Your task to perform on an android device: find which apps use the phone's location Image 0: 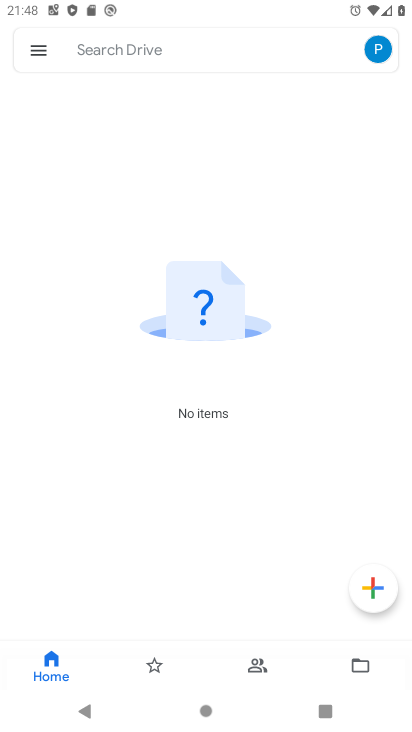
Step 0: press home button
Your task to perform on an android device: find which apps use the phone's location Image 1: 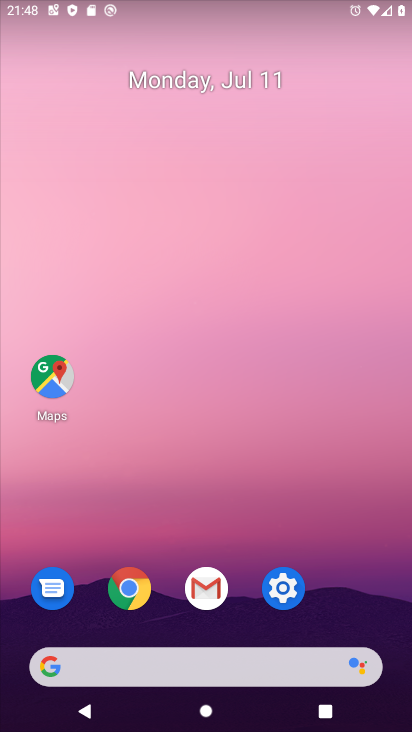
Step 1: click (279, 594)
Your task to perform on an android device: find which apps use the phone's location Image 2: 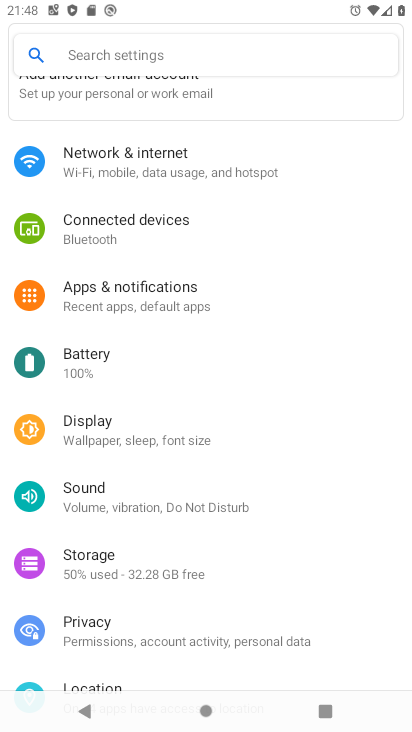
Step 2: click (140, 45)
Your task to perform on an android device: find which apps use the phone's location Image 3: 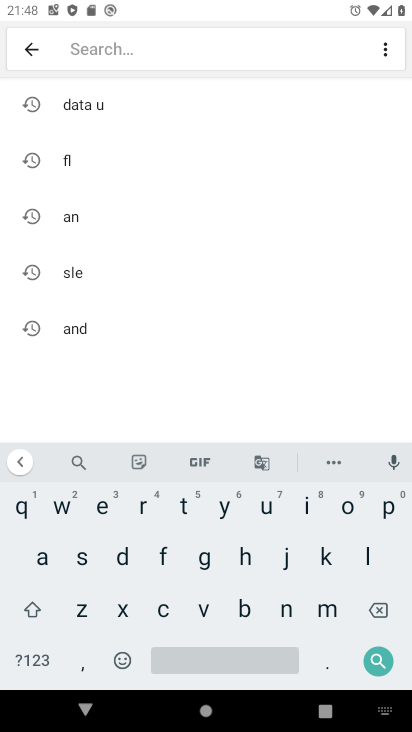
Step 3: click (373, 570)
Your task to perform on an android device: find which apps use the phone's location Image 4: 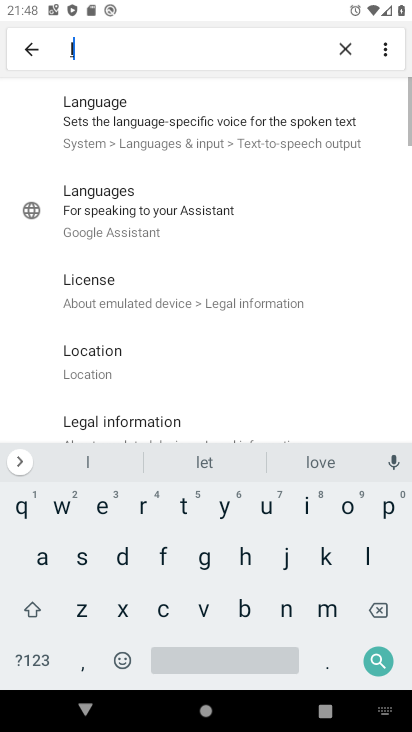
Step 4: click (350, 509)
Your task to perform on an android device: find which apps use the phone's location Image 5: 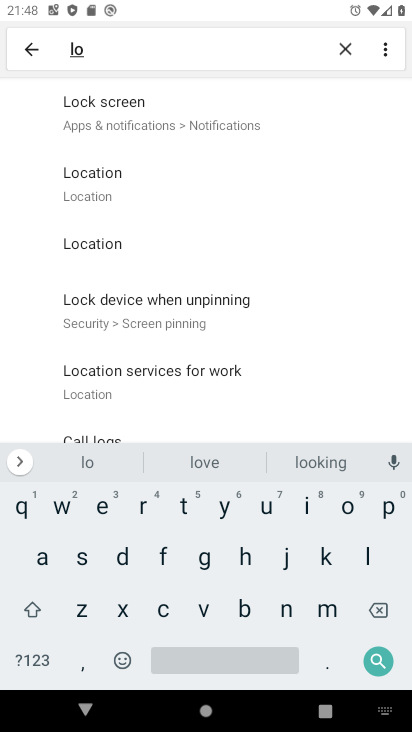
Step 5: click (115, 182)
Your task to perform on an android device: find which apps use the phone's location Image 6: 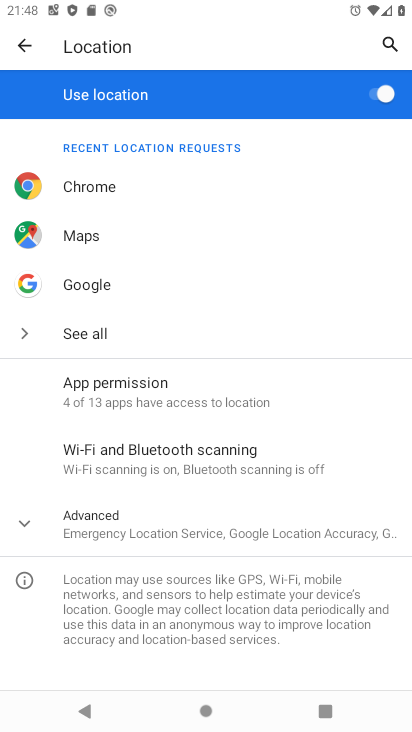
Step 6: task complete